Your task to perform on an android device: turn pop-ups on in chrome Image 0: 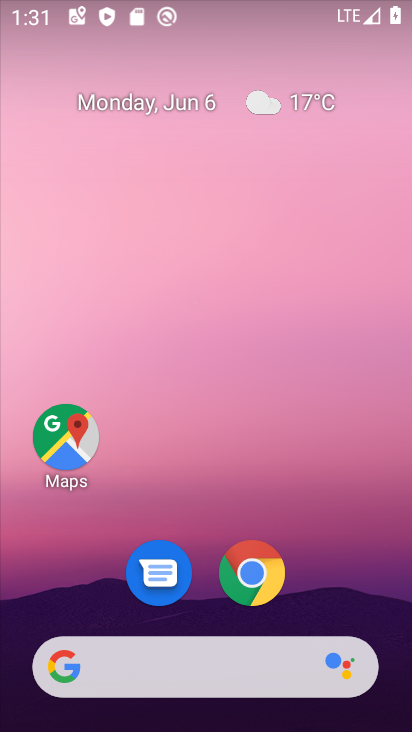
Step 0: drag from (357, 586) to (386, 152)
Your task to perform on an android device: turn pop-ups on in chrome Image 1: 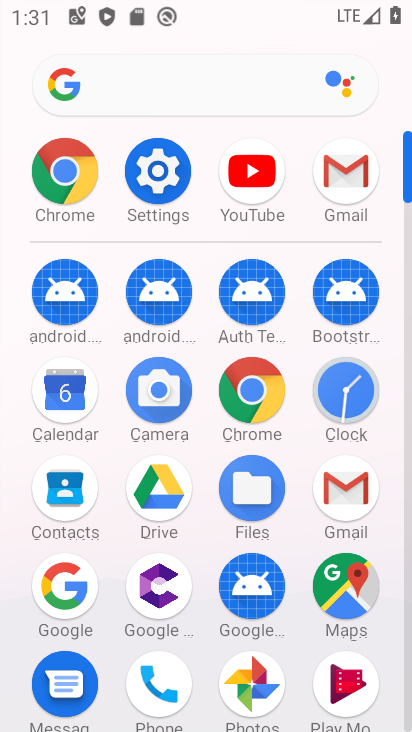
Step 1: click (230, 398)
Your task to perform on an android device: turn pop-ups on in chrome Image 2: 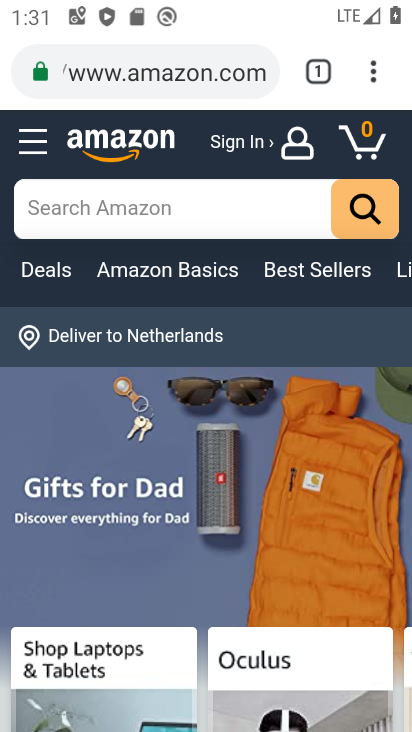
Step 2: click (371, 78)
Your task to perform on an android device: turn pop-ups on in chrome Image 3: 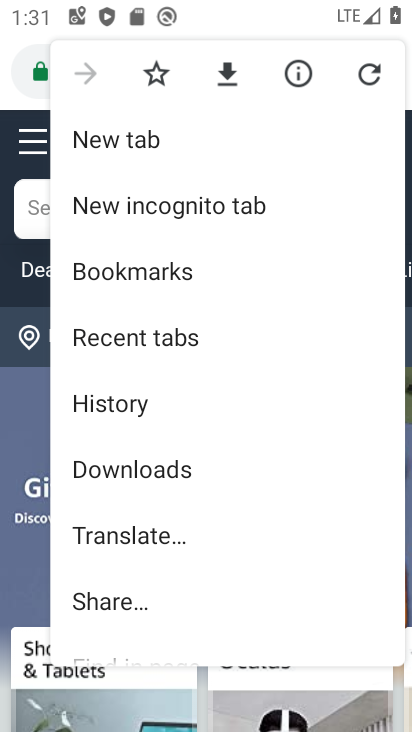
Step 3: drag from (322, 486) to (361, 249)
Your task to perform on an android device: turn pop-ups on in chrome Image 4: 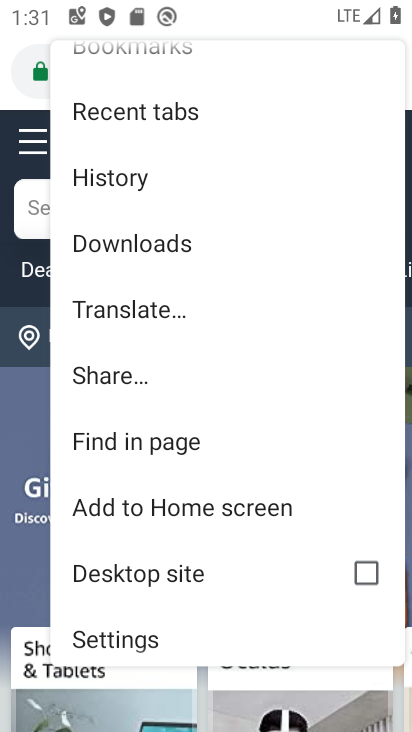
Step 4: drag from (339, 429) to (340, 296)
Your task to perform on an android device: turn pop-ups on in chrome Image 5: 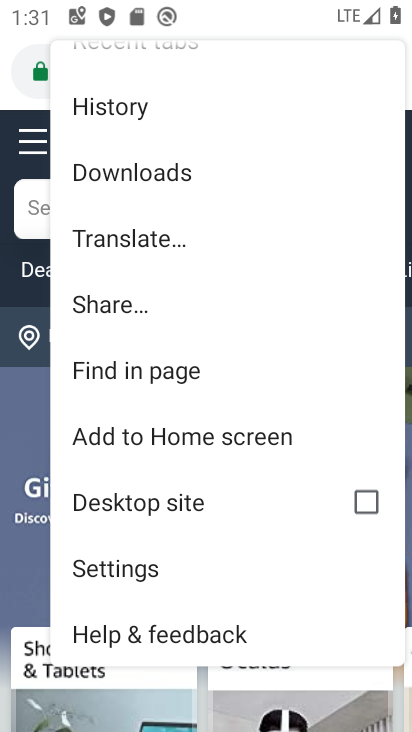
Step 5: click (151, 568)
Your task to perform on an android device: turn pop-ups on in chrome Image 6: 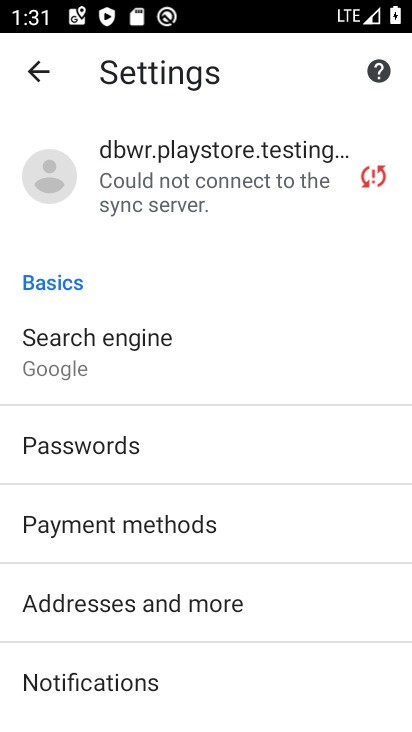
Step 6: drag from (342, 542) to (353, 411)
Your task to perform on an android device: turn pop-ups on in chrome Image 7: 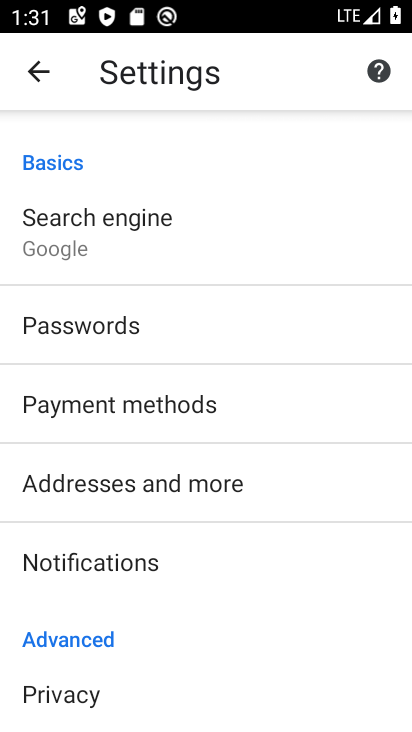
Step 7: drag from (329, 598) to (329, 450)
Your task to perform on an android device: turn pop-ups on in chrome Image 8: 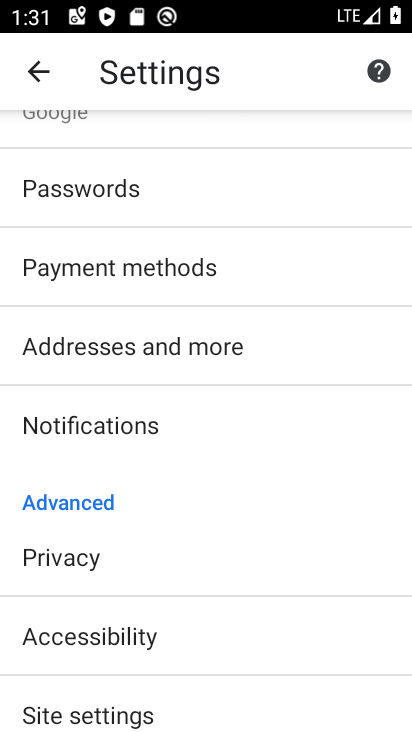
Step 8: drag from (306, 580) to (338, 432)
Your task to perform on an android device: turn pop-ups on in chrome Image 9: 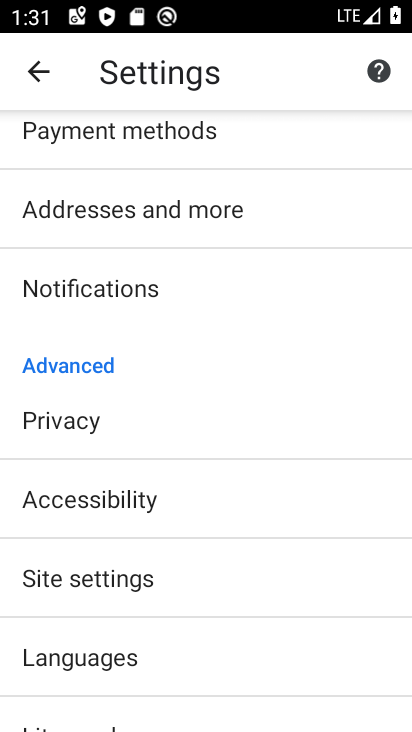
Step 9: click (213, 582)
Your task to perform on an android device: turn pop-ups on in chrome Image 10: 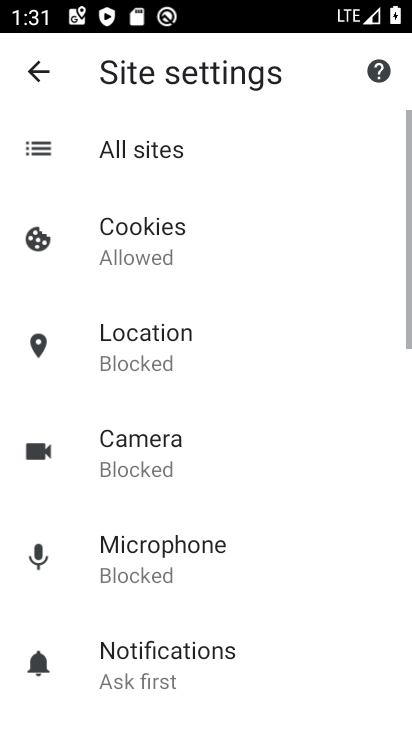
Step 10: drag from (306, 576) to (342, 382)
Your task to perform on an android device: turn pop-ups on in chrome Image 11: 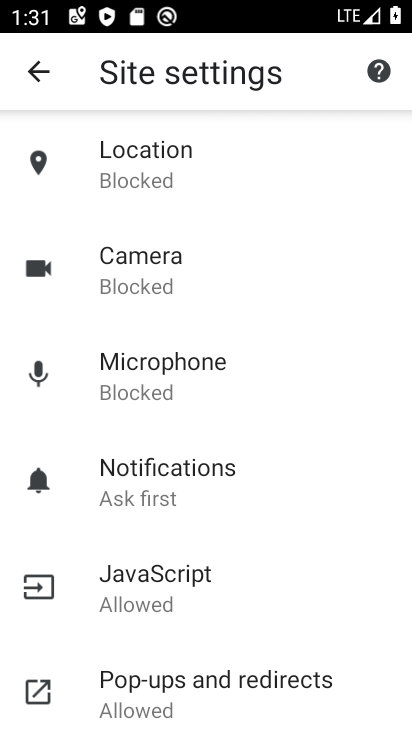
Step 11: drag from (320, 596) to (350, 333)
Your task to perform on an android device: turn pop-ups on in chrome Image 12: 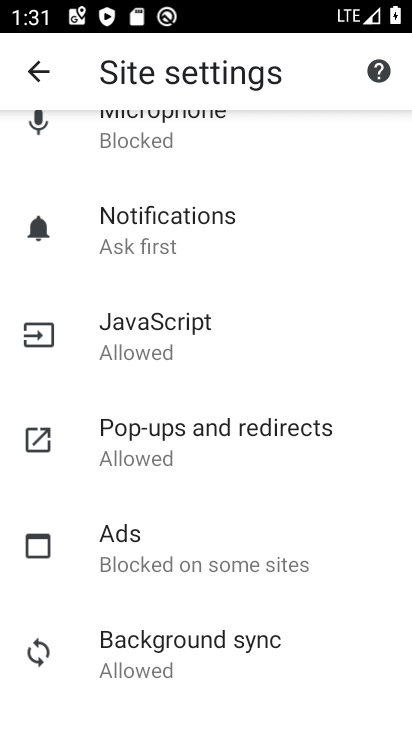
Step 12: click (294, 450)
Your task to perform on an android device: turn pop-ups on in chrome Image 13: 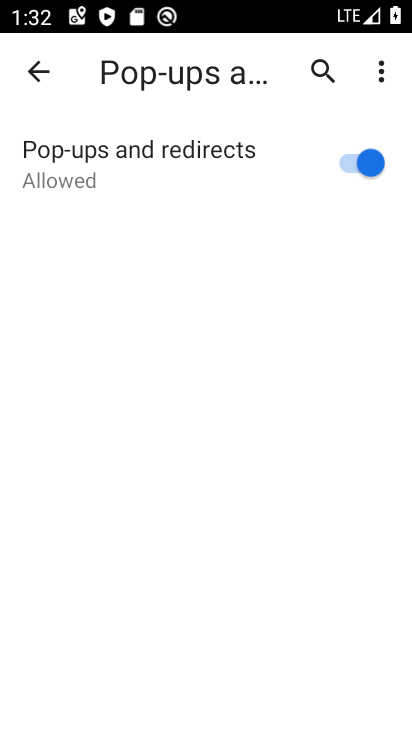
Step 13: task complete